Your task to perform on an android device: Do I have any events this weekend? Image 0: 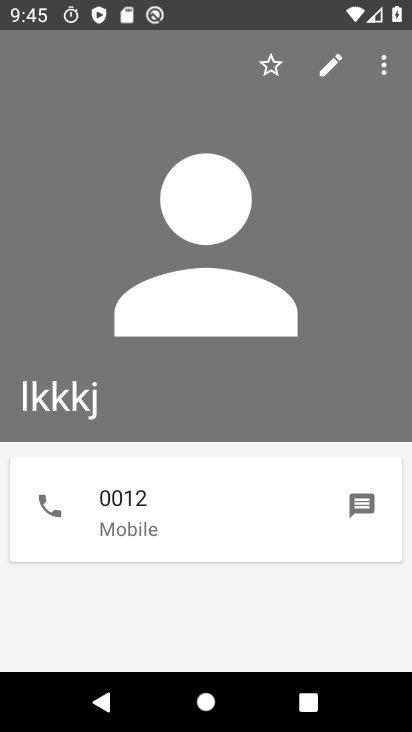
Step 0: press home button
Your task to perform on an android device: Do I have any events this weekend? Image 1: 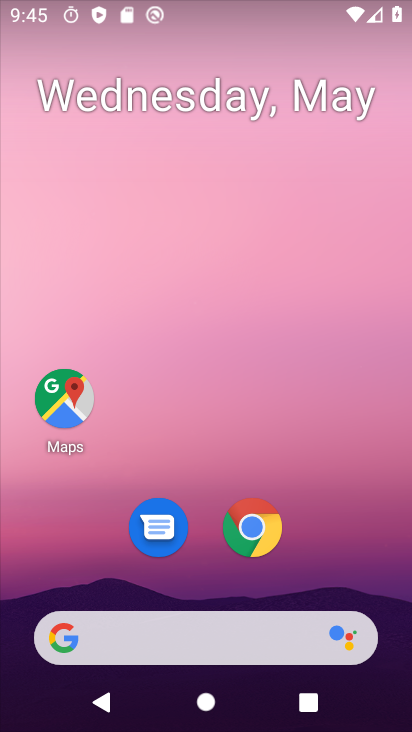
Step 1: click (234, 527)
Your task to perform on an android device: Do I have any events this weekend? Image 2: 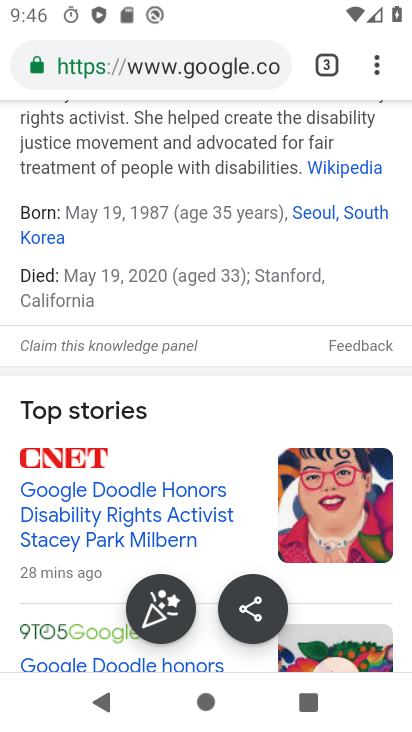
Step 2: press home button
Your task to perform on an android device: Do I have any events this weekend? Image 3: 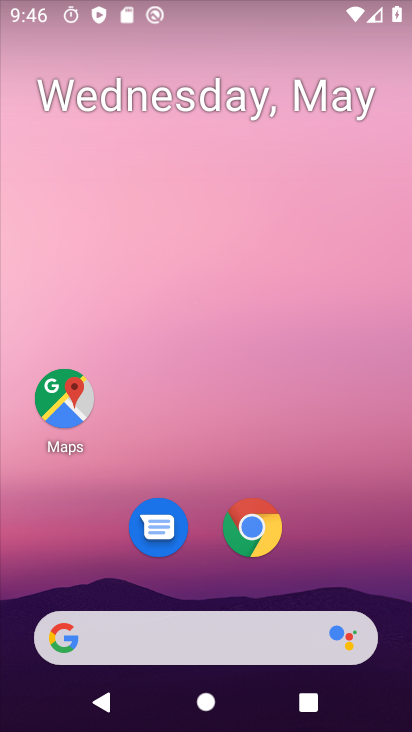
Step 3: drag from (293, 561) to (258, 62)
Your task to perform on an android device: Do I have any events this weekend? Image 4: 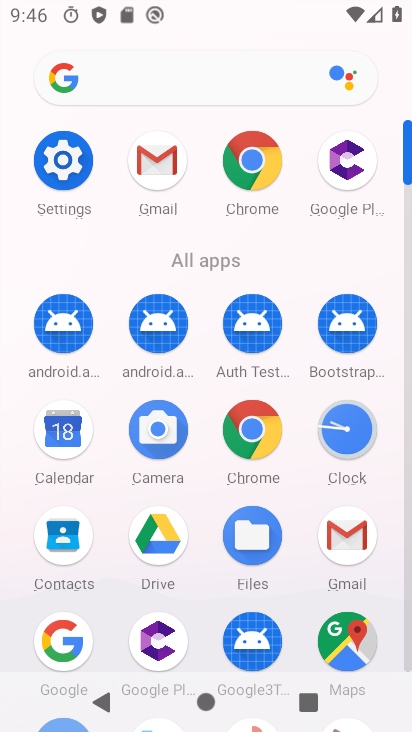
Step 4: click (59, 423)
Your task to perform on an android device: Do I have any events this weekend? Image 5: 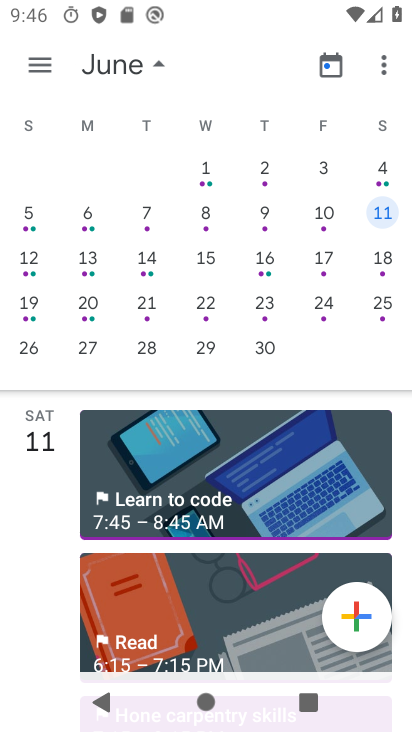
Step 5: drag from (68, 188) to (374, 217)
Your task to perform on an android device: Do I have any events this weekend? Image 6: 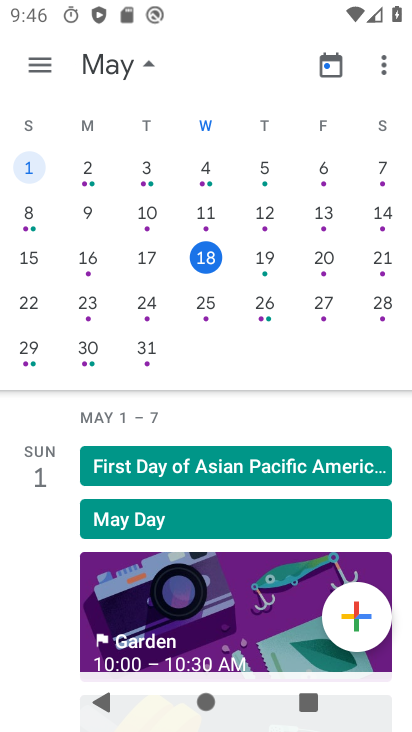
Step 6: click (314, 252)
Your task to perform on an android device: Do I have any events this weekend? Image 7: 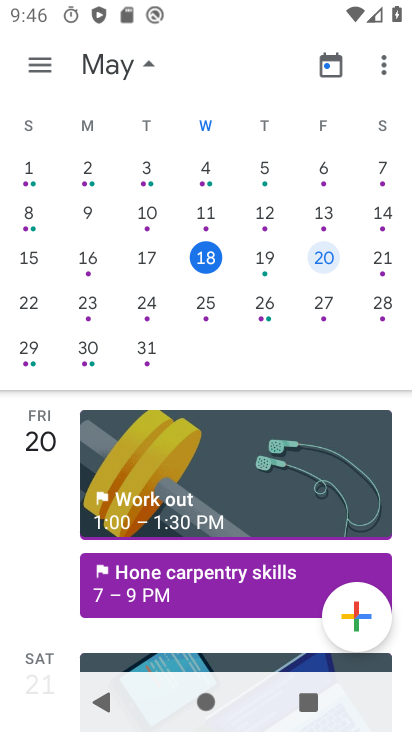
Step 7: task complete